Your task to perform on an android device: Search for Italian restaurants on Maps Image 0: 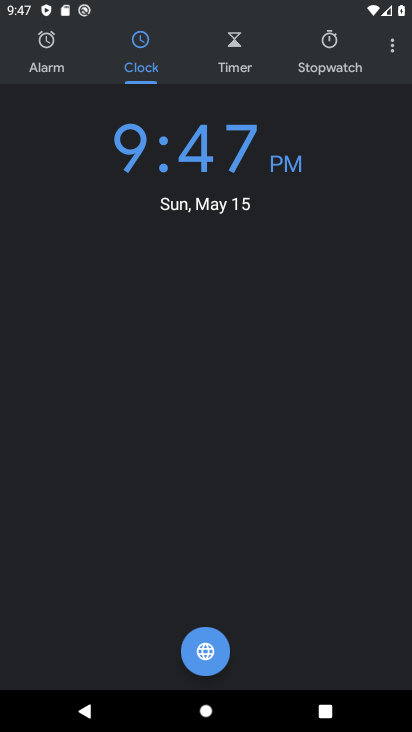
Step 0: press home button
Your task to perform on an android device: Search for Italian restaurants on Maps Image 1: 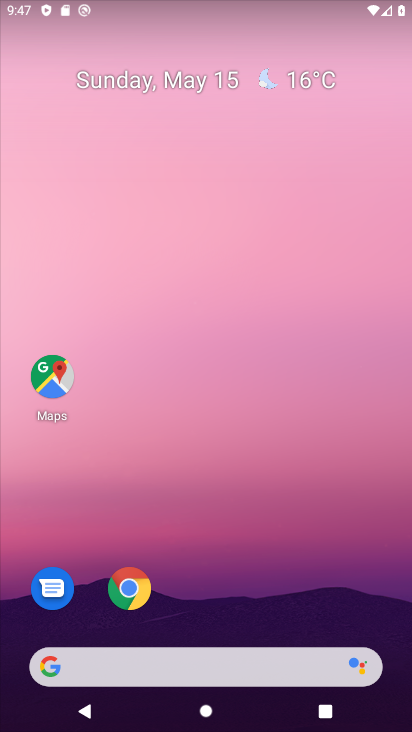
Step 1: click (51, 391)
Your task to perform on an android device: Search for Italian restaurants on Maps Image 2: 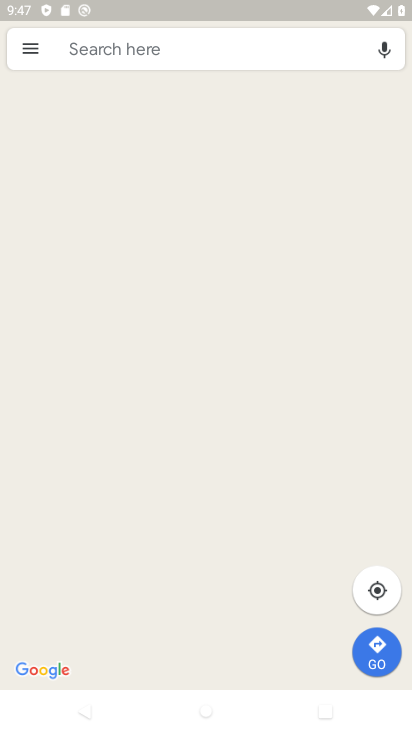
Step 2: click (144, 44)
Your task to perform on an android device: Search for Italian restaurants on Maps Image 3: 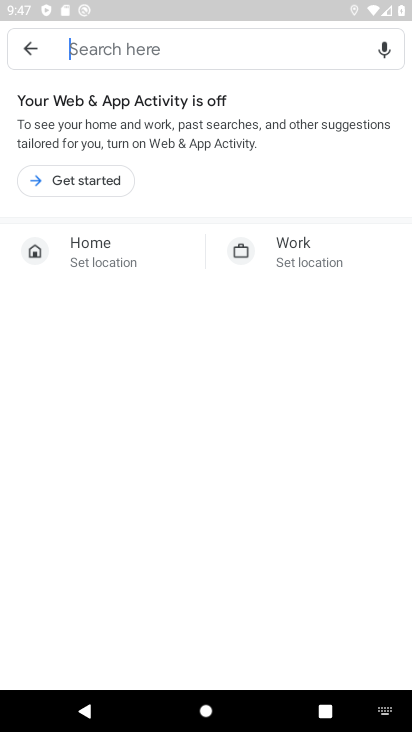
Step 3: type "italian"
Your task to perform on an android device: Search for Italian restaurants on Maps Image 4: 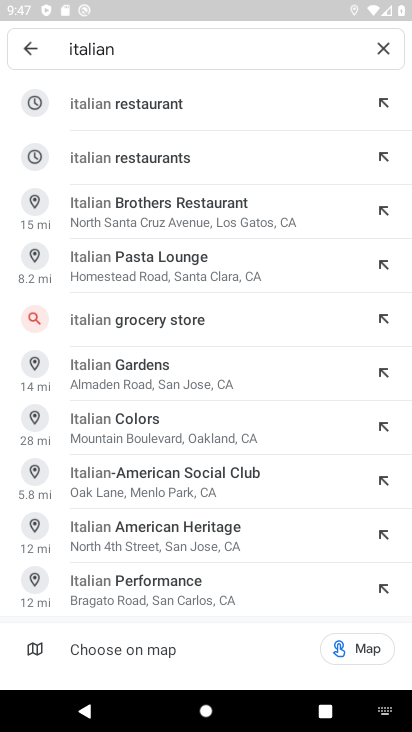
Step 4: click (154, 106)
Your task to perform on an android device: Search for Italian restaurants on Maps Image 5: 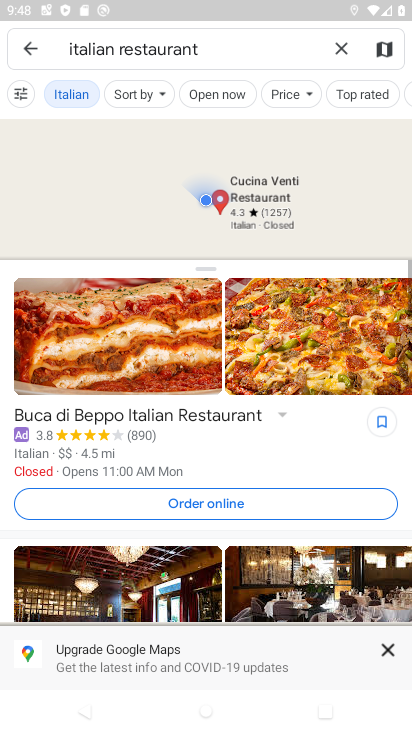
Step 5: task complete